Your task to perform on an android device: empty trash in google photos Image 0: 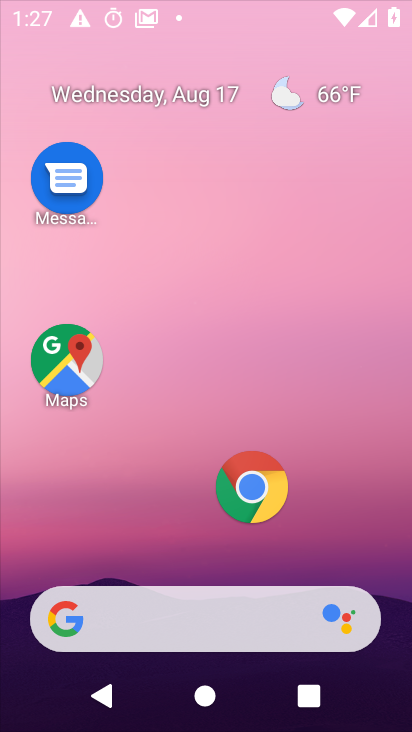
Step 0: press home button
Your task to perform on an android device: empty trash in google photos Image 1: 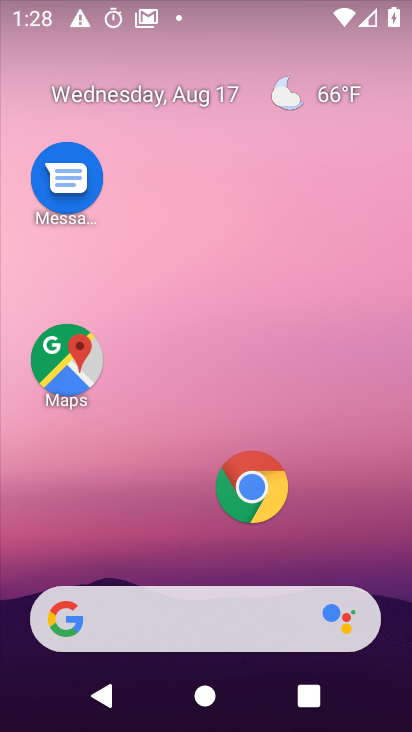
Step 1: drag from (196, 563) to (163, 113)
Your task to perform on an android device: empty trash in google photos Image 2: 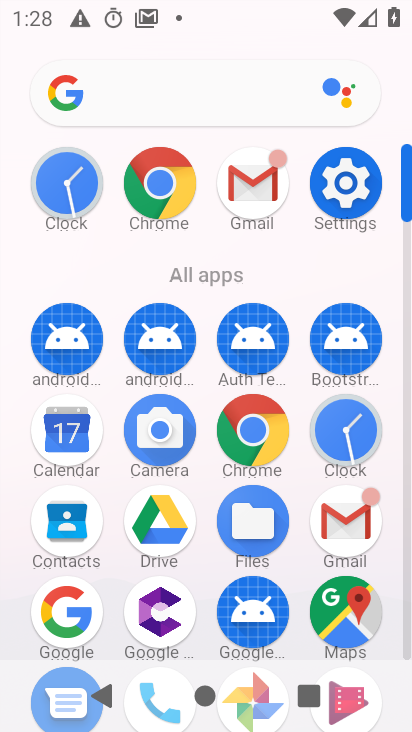
Step 2: drag from (214, 564) to (218, 175)
Your task to perform on an android device: empty trash in google photos Image 3: 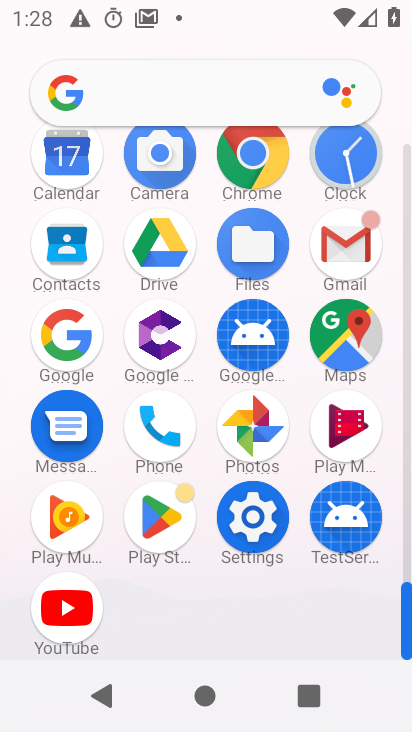
Step 3: click (252, 416)
Your task to perform on an android device: empty trash in google photos Image 4: 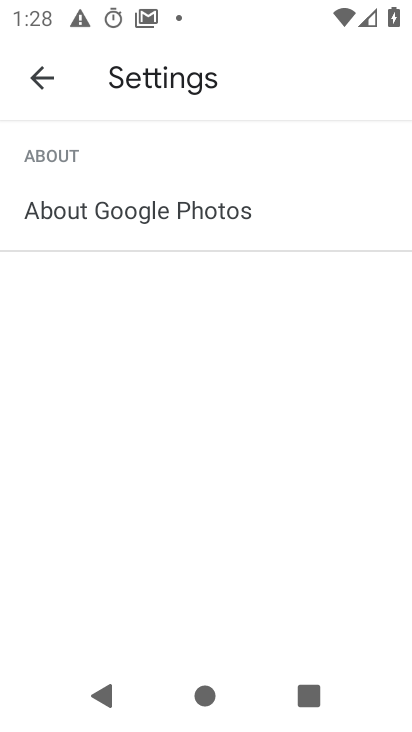
Step 4: task complete